Your task to perform on an android device: open app "Move to iOS" (install if not already installed) and enter user name: "Decca@icloud.com" and password: "reabbreviate" Image 0: 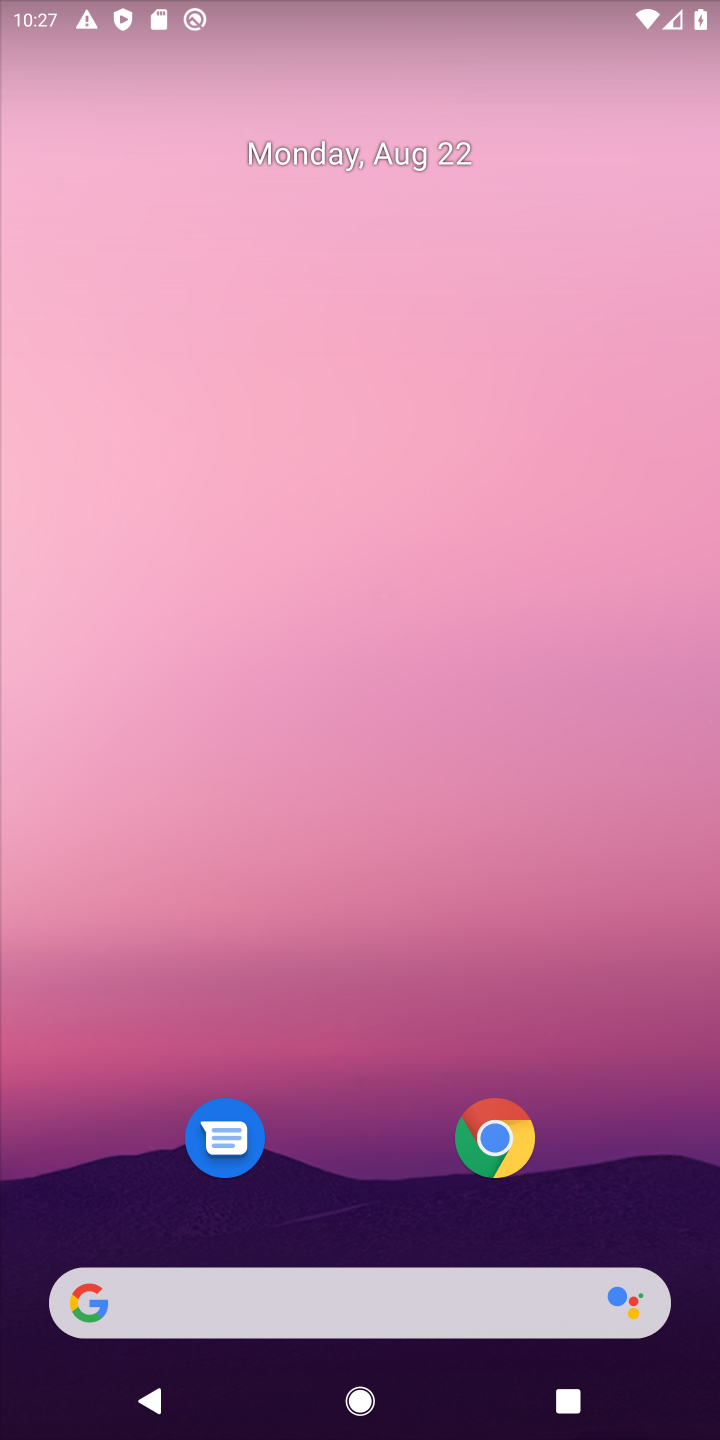
Step 0: drag from (270, 1258) to (523, 0)
Your task to perform on an android device: open app "Move to iOS" (install if not already installed) and enter user name: "Decca@icloud.com" and password: "reabbreviate" Image 1: 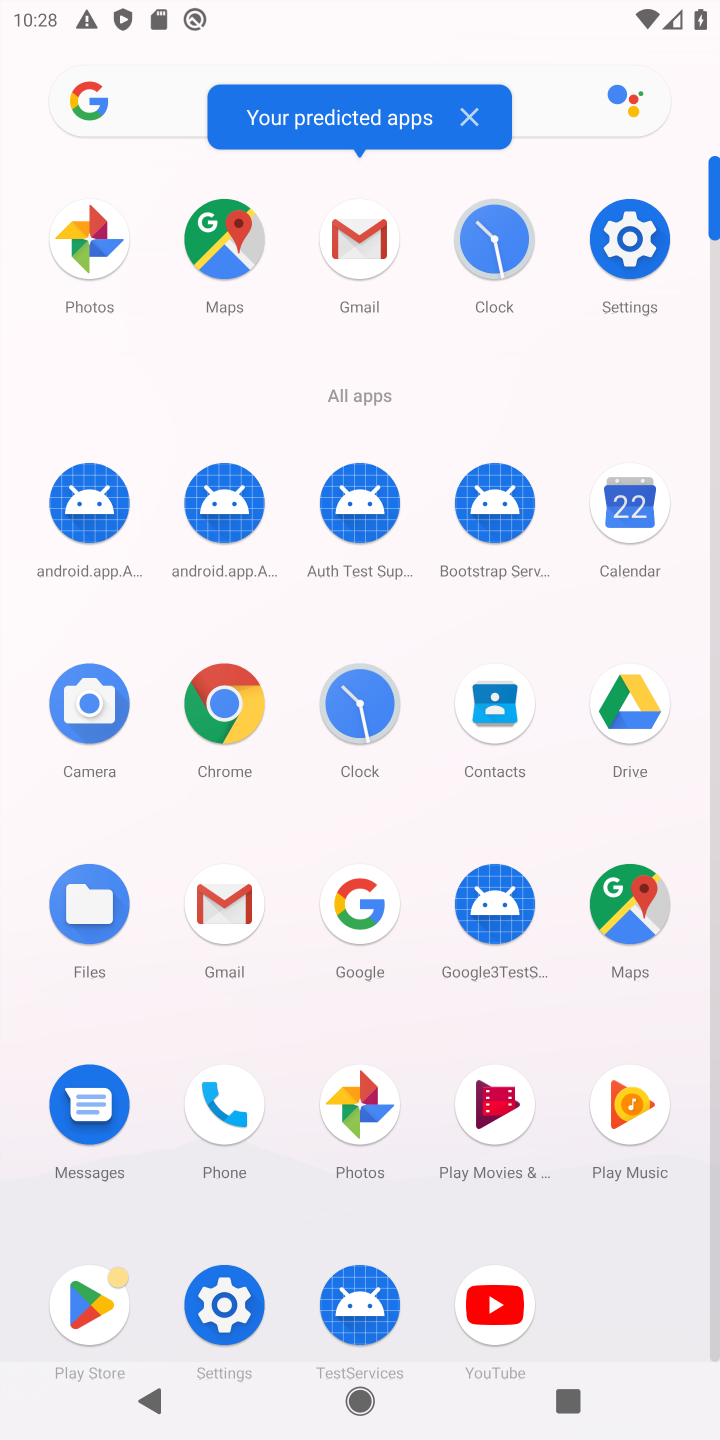
Step 1: click (100, 1297)
Your task to perform on an android device: open app "Move to iOS" (install if not already installed) and enter user name: "Decca@icloud.com" and password: "reabbreviate" Image 2: 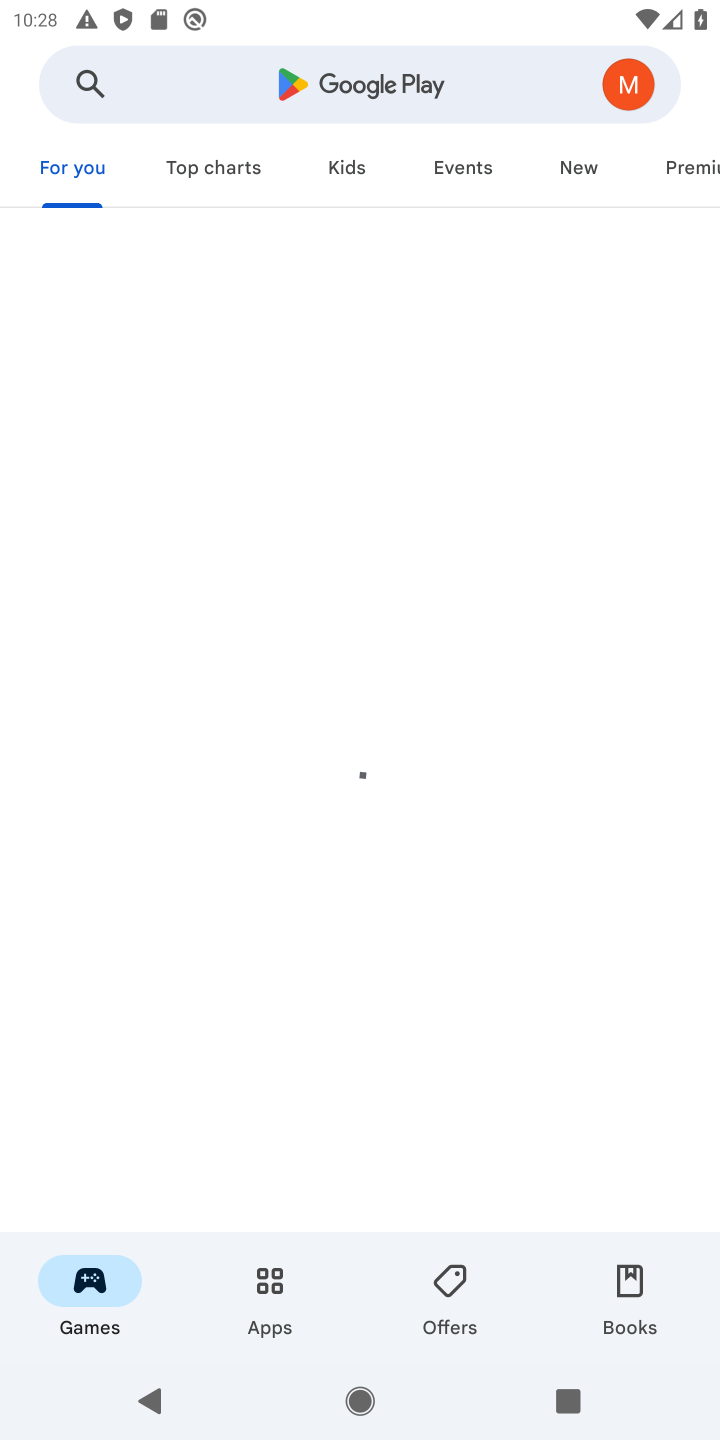
Step 2: click (438, 94)
Your task to perform on an android device: open app "Move to iOS" (install if not already installed) and enter user name: "Decca@icloud.com" and password: "reabbreviate" Image 3: 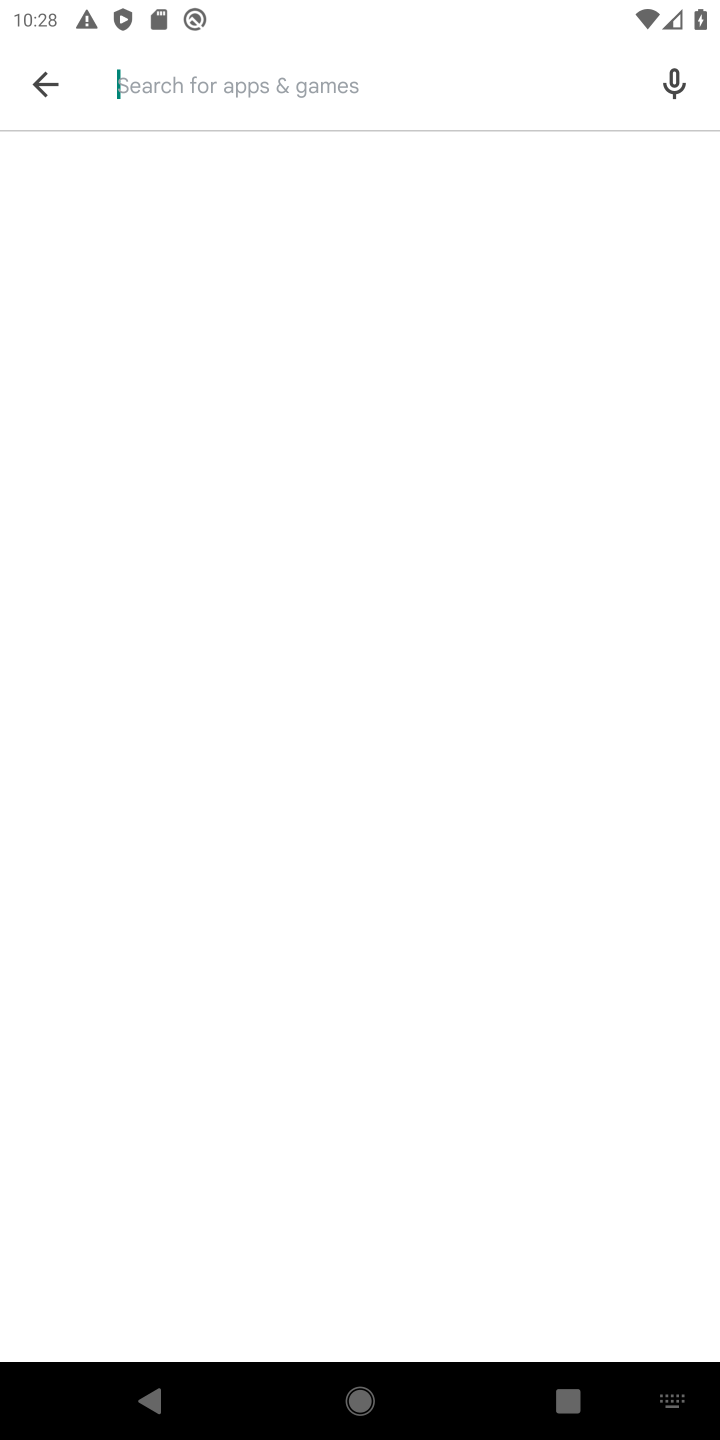
Step 3: type "Move to iOS"
Your task to perform on an android device: open app "Move to iOS" (install if not already installed) and enter user name: "Decca@icloud.com" and password: "reabbreviate" Image 4: 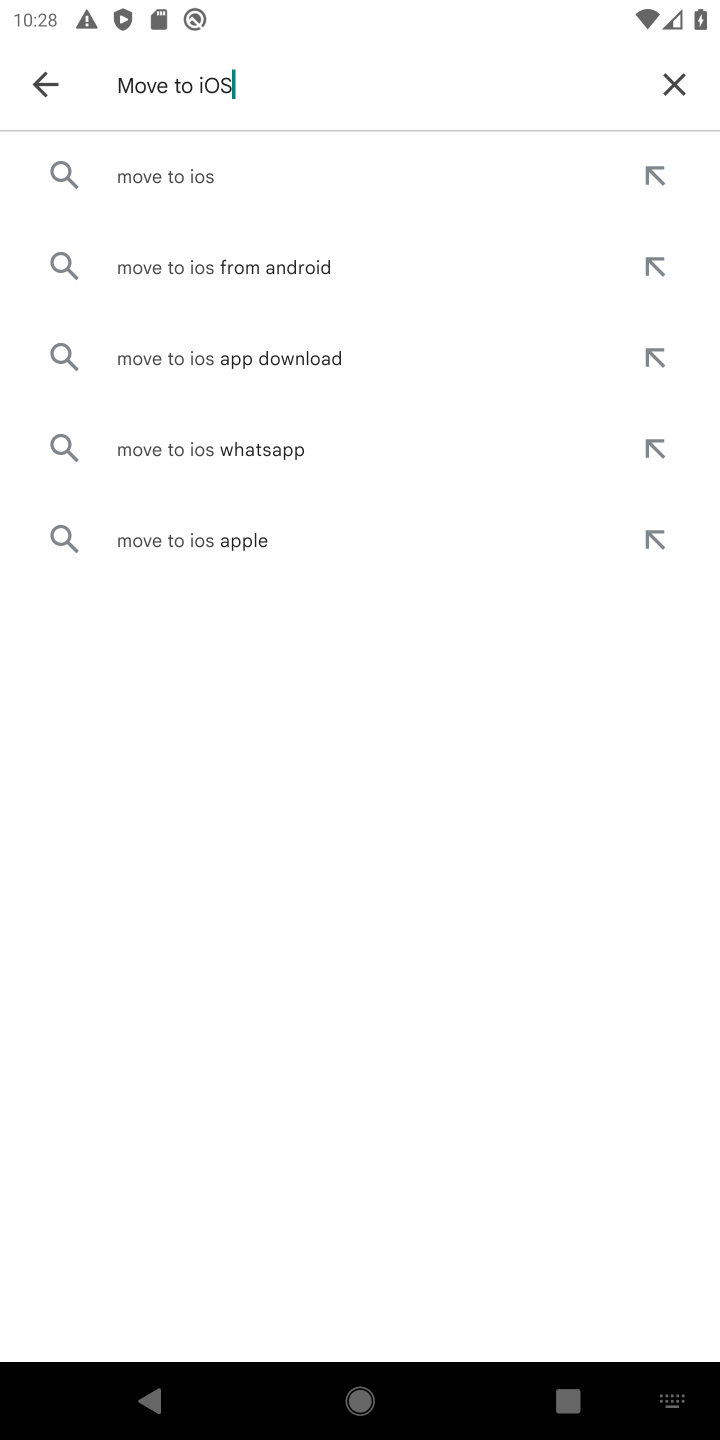
Step 4: click (177, 187)
Your task to perform on an android device: open app "Move to iOS" (install if not already installed) and enter user name: "Decca@icloud.com" and password: "reabbreviate" Image 5: 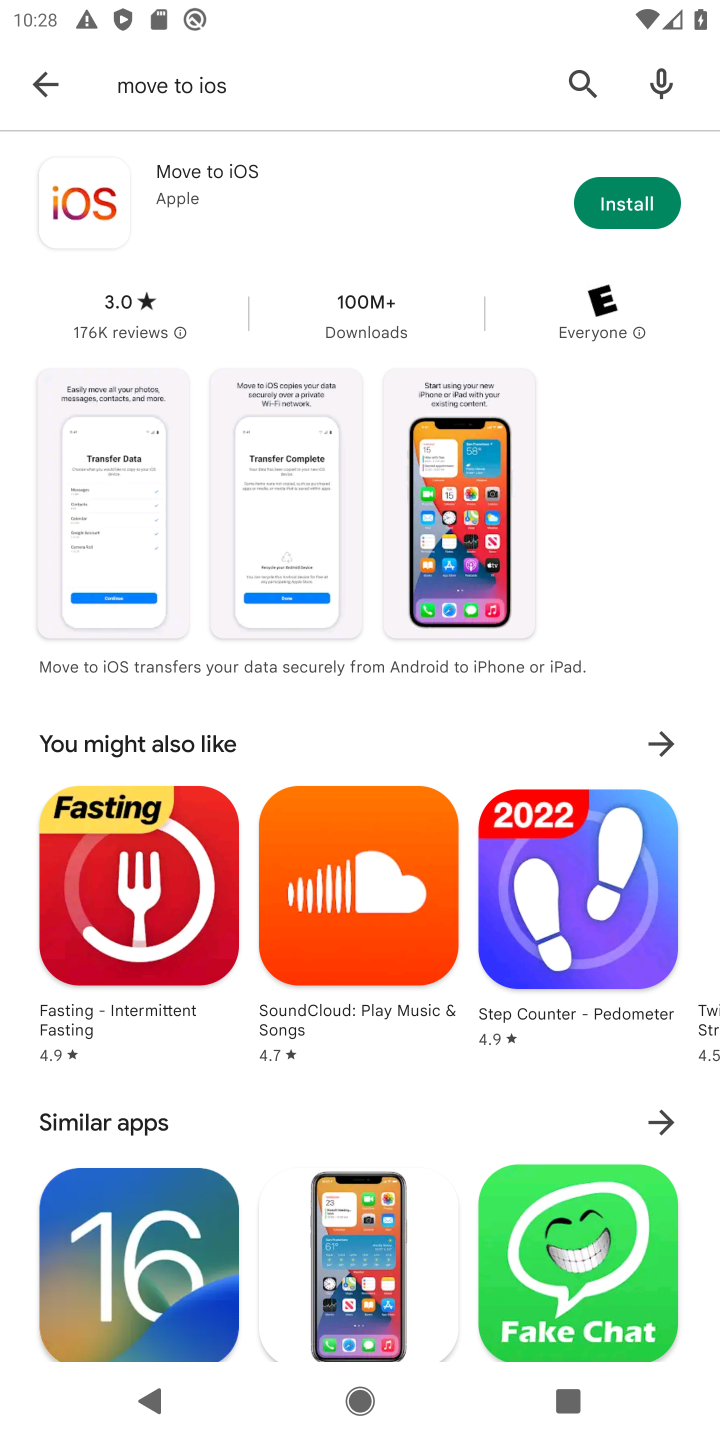
Step 5: click (626, 212)
Your task to perform on an android device: open app "Move to iOS" (install if not already installed) and enter user name: "Decca@icloud.com" and password: "reabbreviate" Image 6: 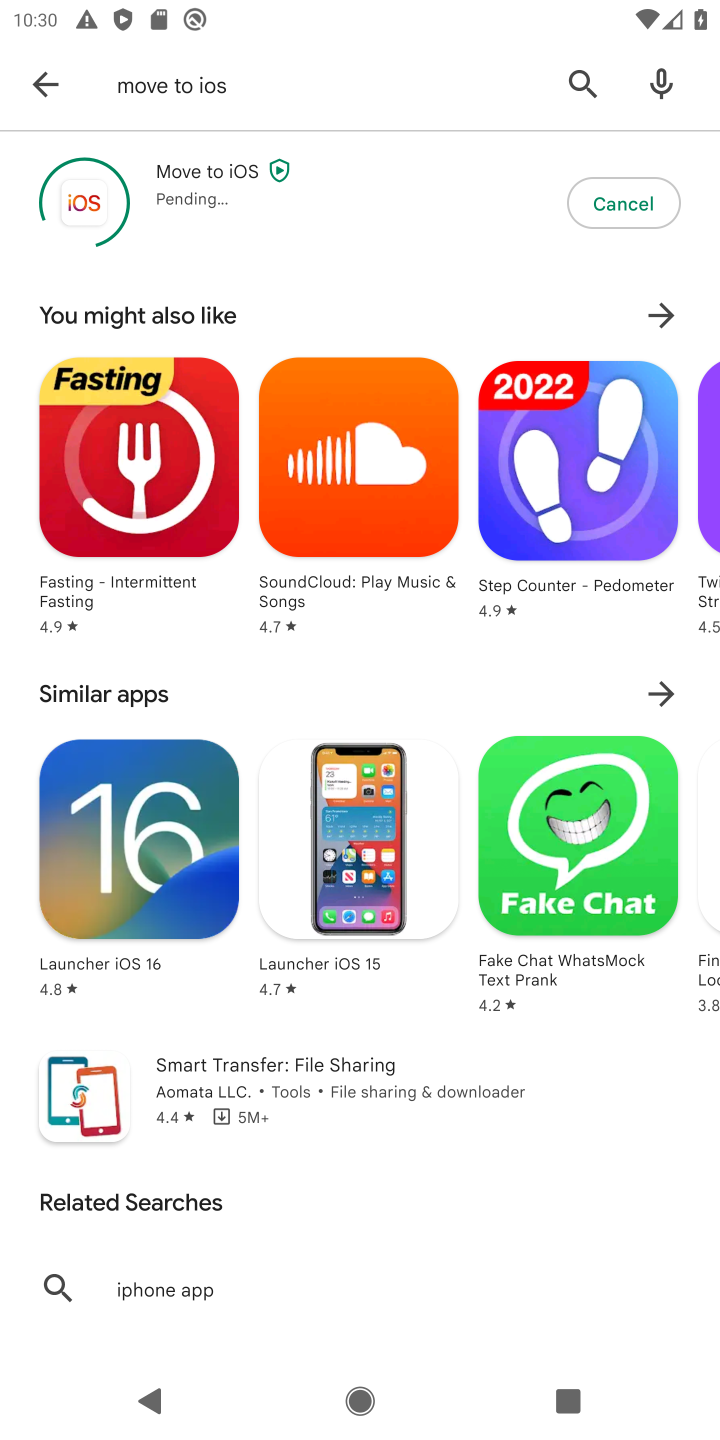
Step 6: task complete